Your task to perform on an android device: Show me popular games on the Play Store Image 0: 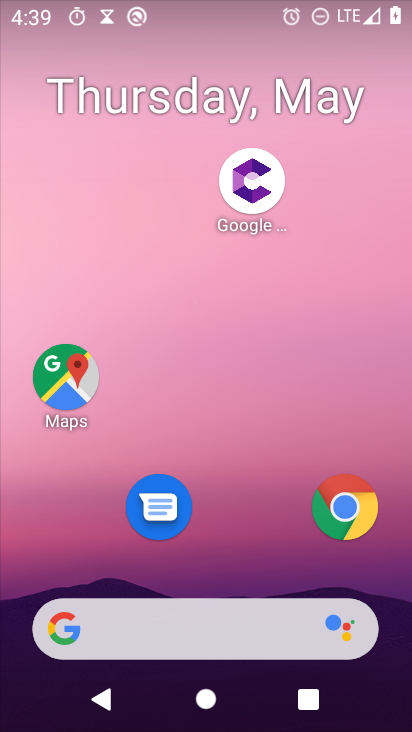
Step 0: drag from (233, 450) to (223, 12)
Your task to perform on an android device: Show me popular games on the Play Store Image 1: 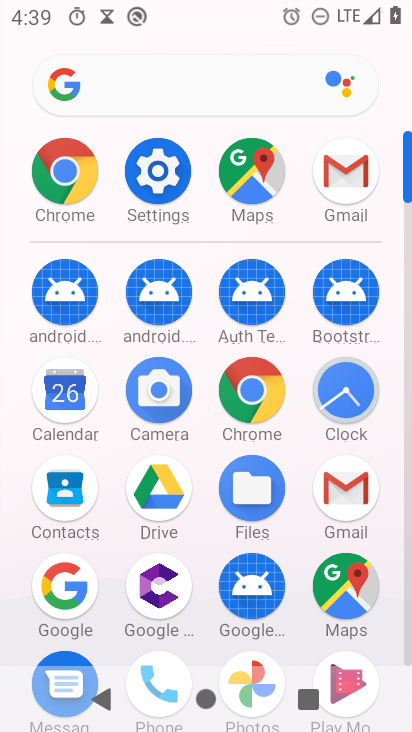
Step 1: drag from (206, 552) to (198, 188)
Your task to perform on an android device: Show me popular games on the Play Store Image 2: 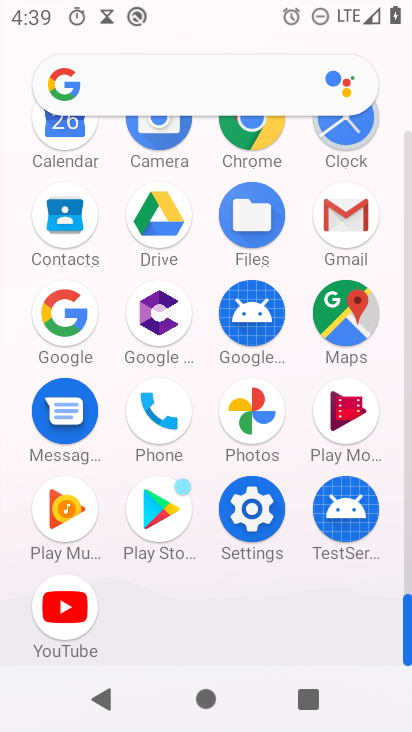
Step 2: click (164, 495)
Your task to perform on an android device: Show me popular games on the Play Store Image 3: 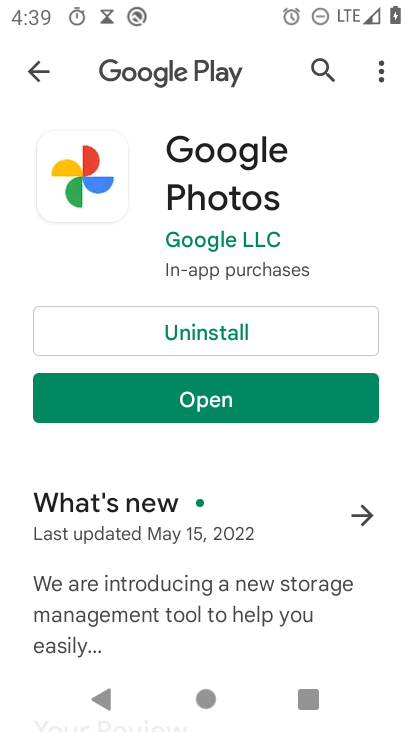
Step 3: click (25, 63)
Your task to perform on an android device: Show me popular games on the Play Store Image 4: 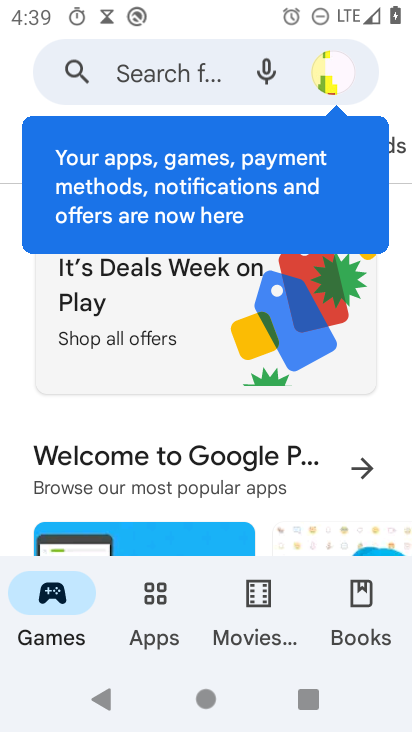
Step 4: click (54, 612)
Your task to perform on an android device: Show me popular games on the Play Store Image 5: 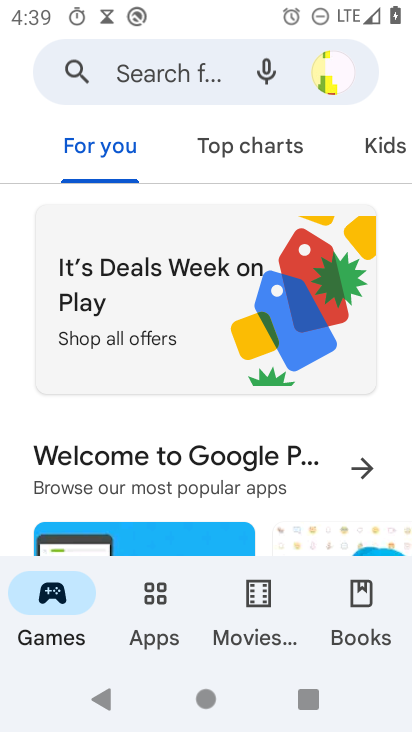
Step 5: click (56, 601)
Your task to perform on an android device: Show me popular games on the Play Store Image 6: 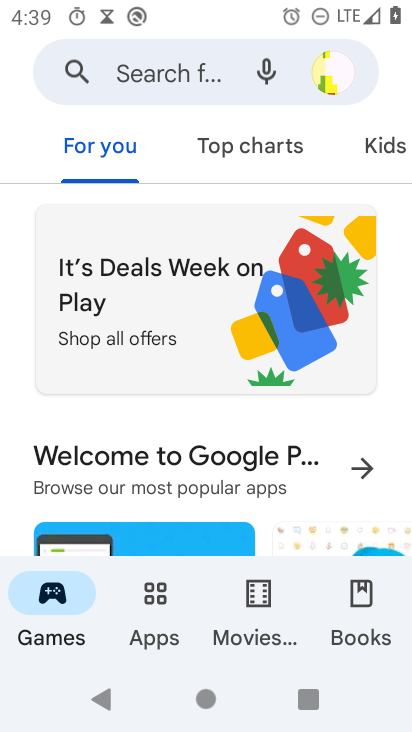
Step 6: task complete